Your task to perform on an android device: open a bookmark in the chrome app Image 0: 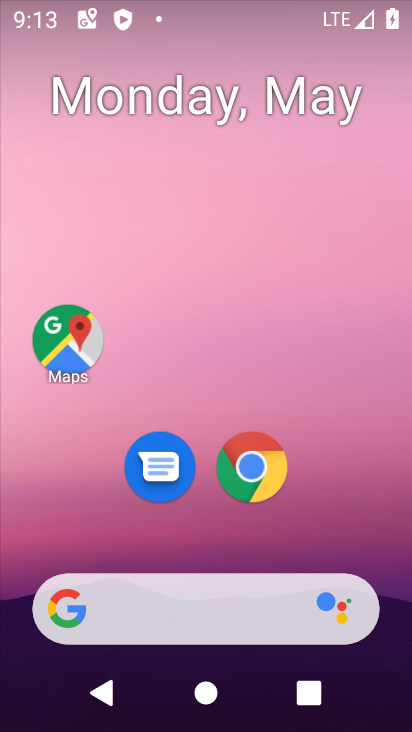
Step 0: click (233, 478)
Your task to perform on an android device: open a bookmark in the chrome app Image 1: 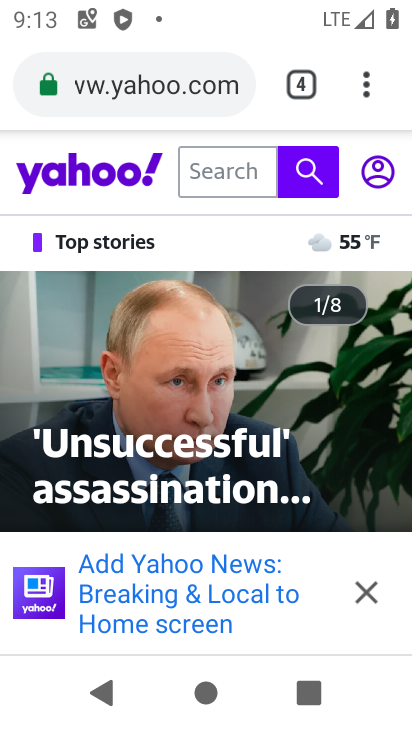
Step 1: click (362, 80)
Your task to perform on an android device: open a bookmark in the chrome app Image 2: 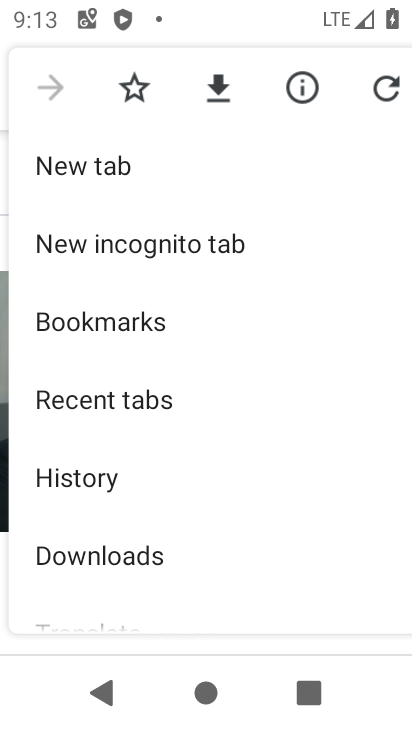
Step 2: click (142, 330)
Your task to perform on an android device: open a bookmark in the chrome app Image 3: 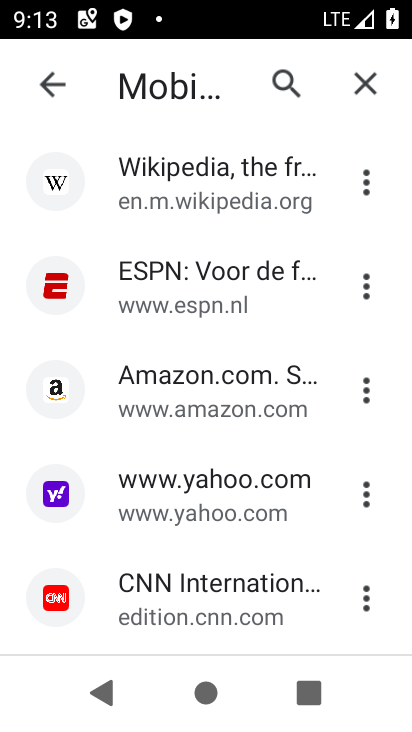
Step 3: click (197, 290)
Your task to perform on an android device: open a bookmark in the chrome app Image 4: 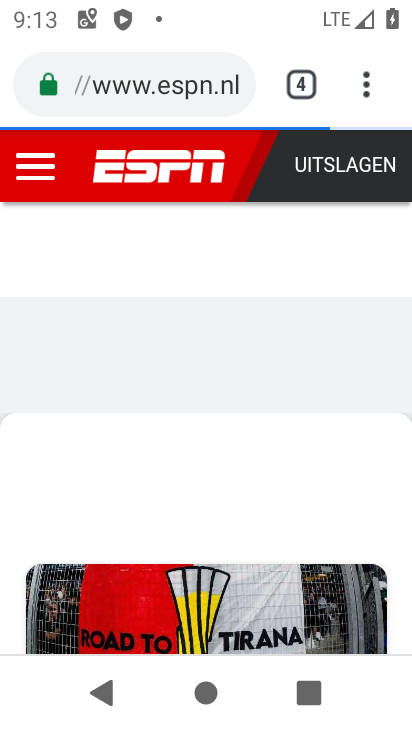
Step 4: task complete